Your task to perform on an android device: open app "Expedia: Hotels, Flights & Car" (install if not already installed) Image 0: 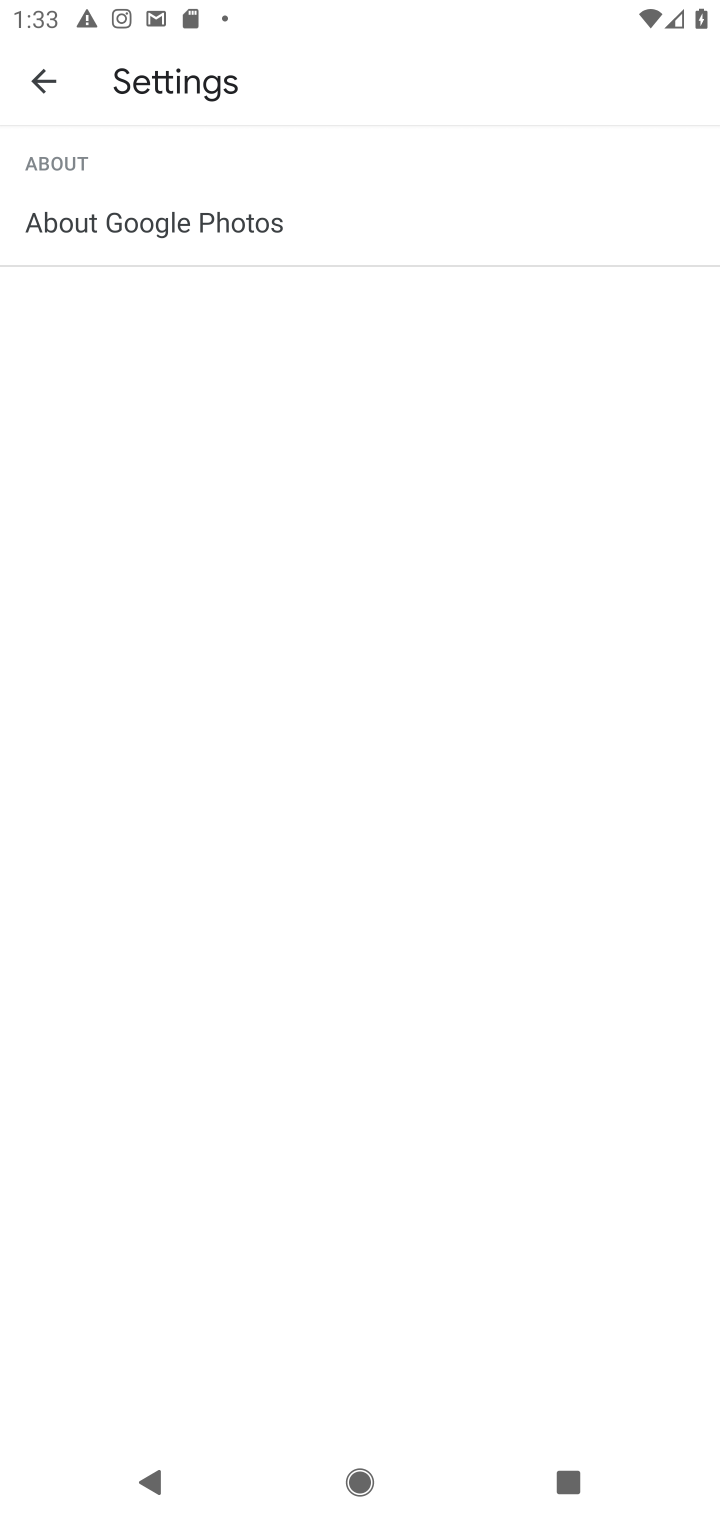
Step 0: press home button
Your task to perform on an android device: open app "Expedia: Hotels, Flights & Car" (install if not already installed) Image 1: 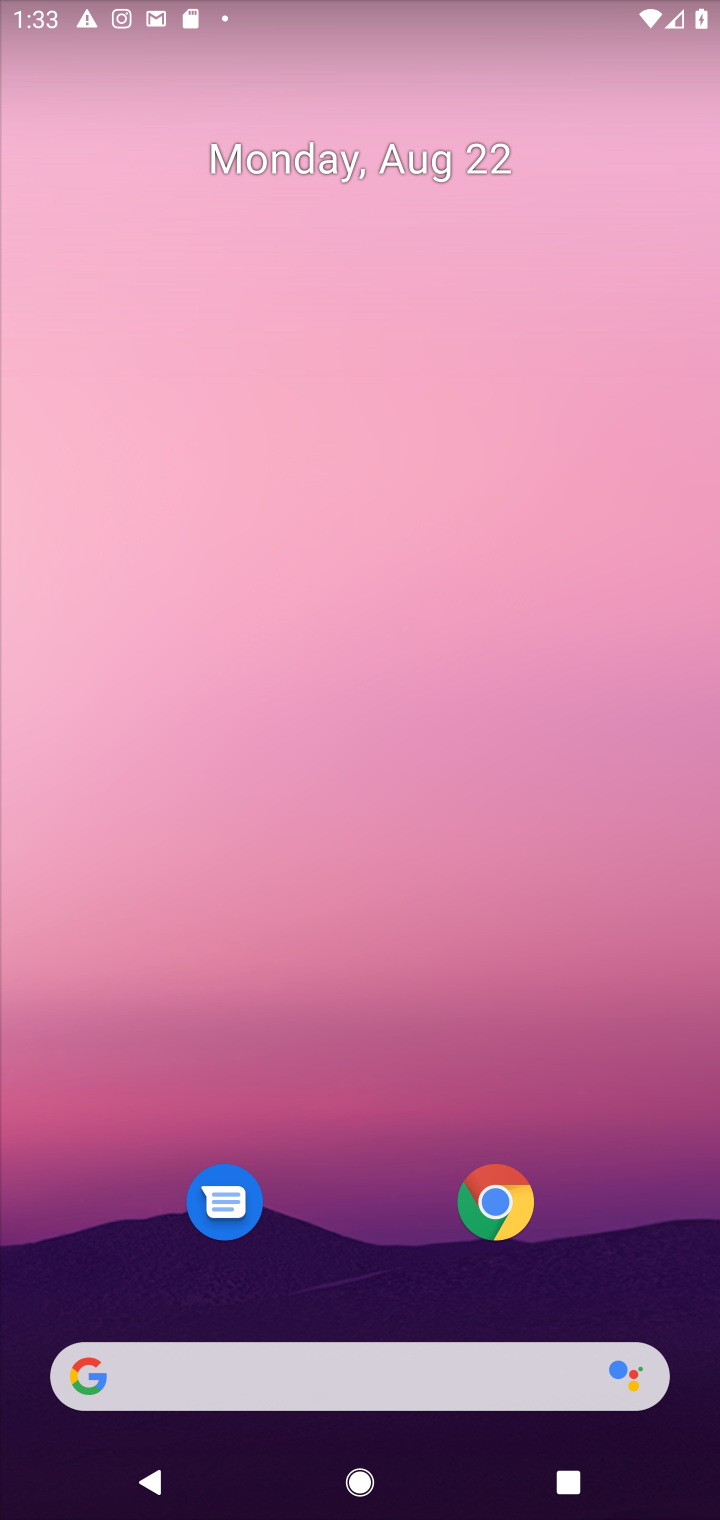
Step 1: drag from (367, 555) to (361, 181)
Your task to perform on an android device: open app "Expedia: Hotels, Flights & Car" (install if not already installed) Image 2: 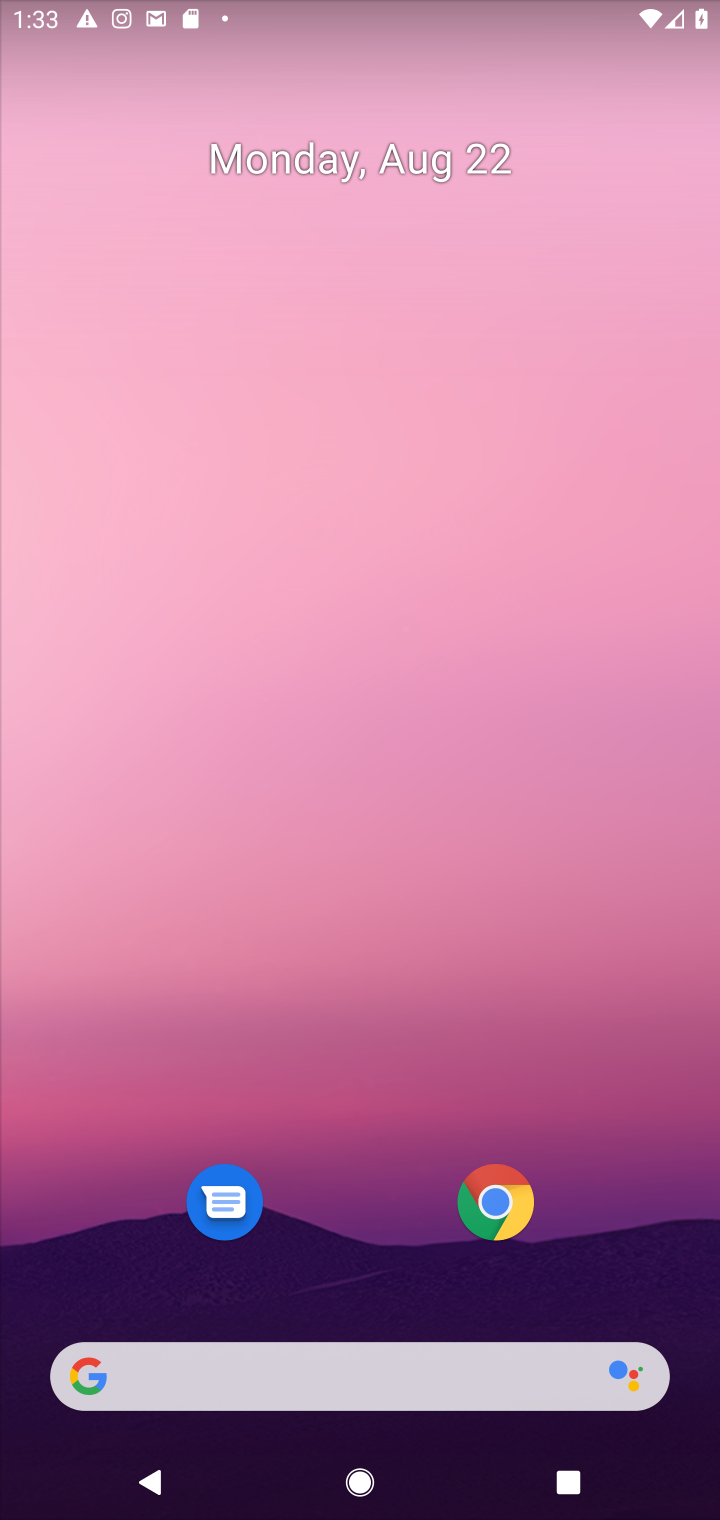
Step 2: drag from (322, 829) to (324, 98)
Your task to perform on an android device: open app "Expedia: Hotels, Flights & Car" (install if not already installed) Image 3: 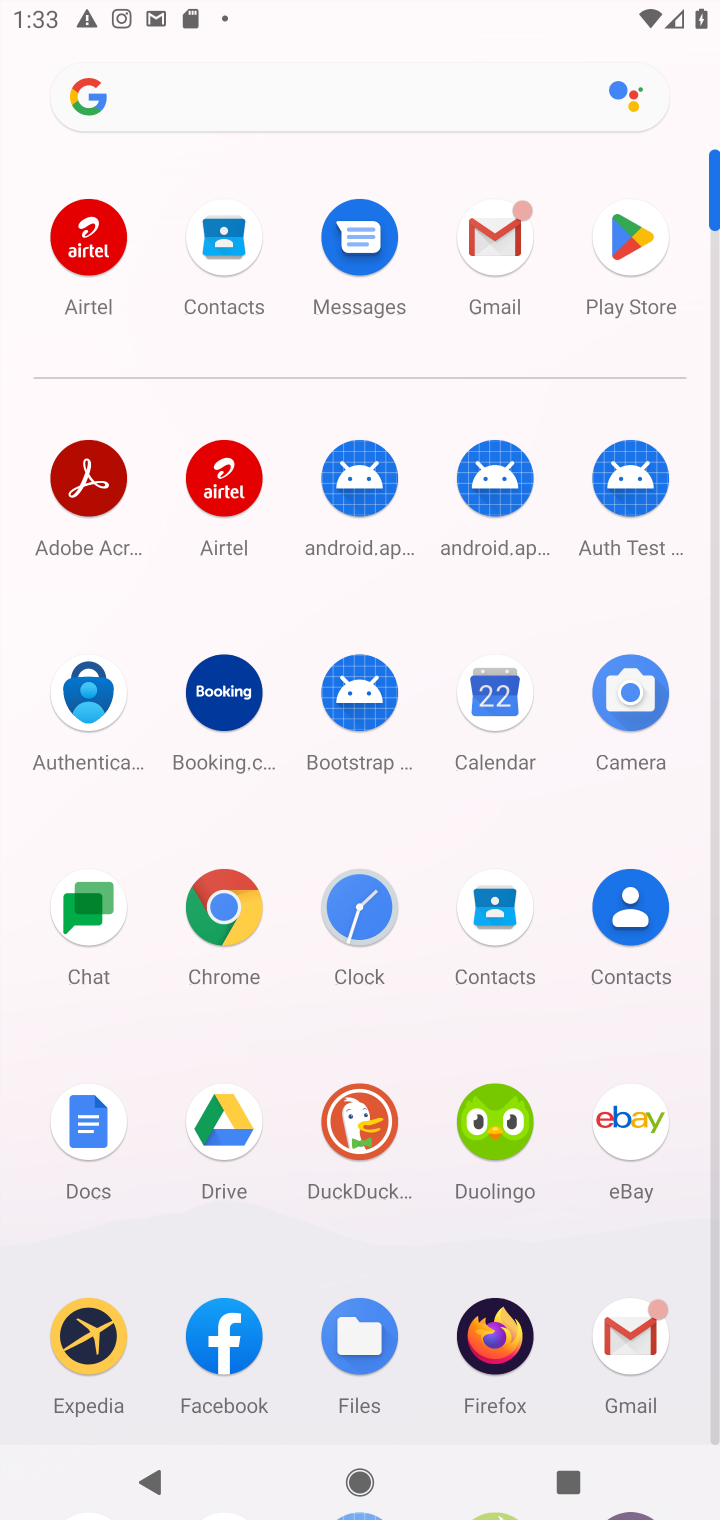
Step 3: click (624, 256)
Your task to perform on an android device: open app "Expedia: Hotels, Flights & Car" (install if not already installed) Image 4: 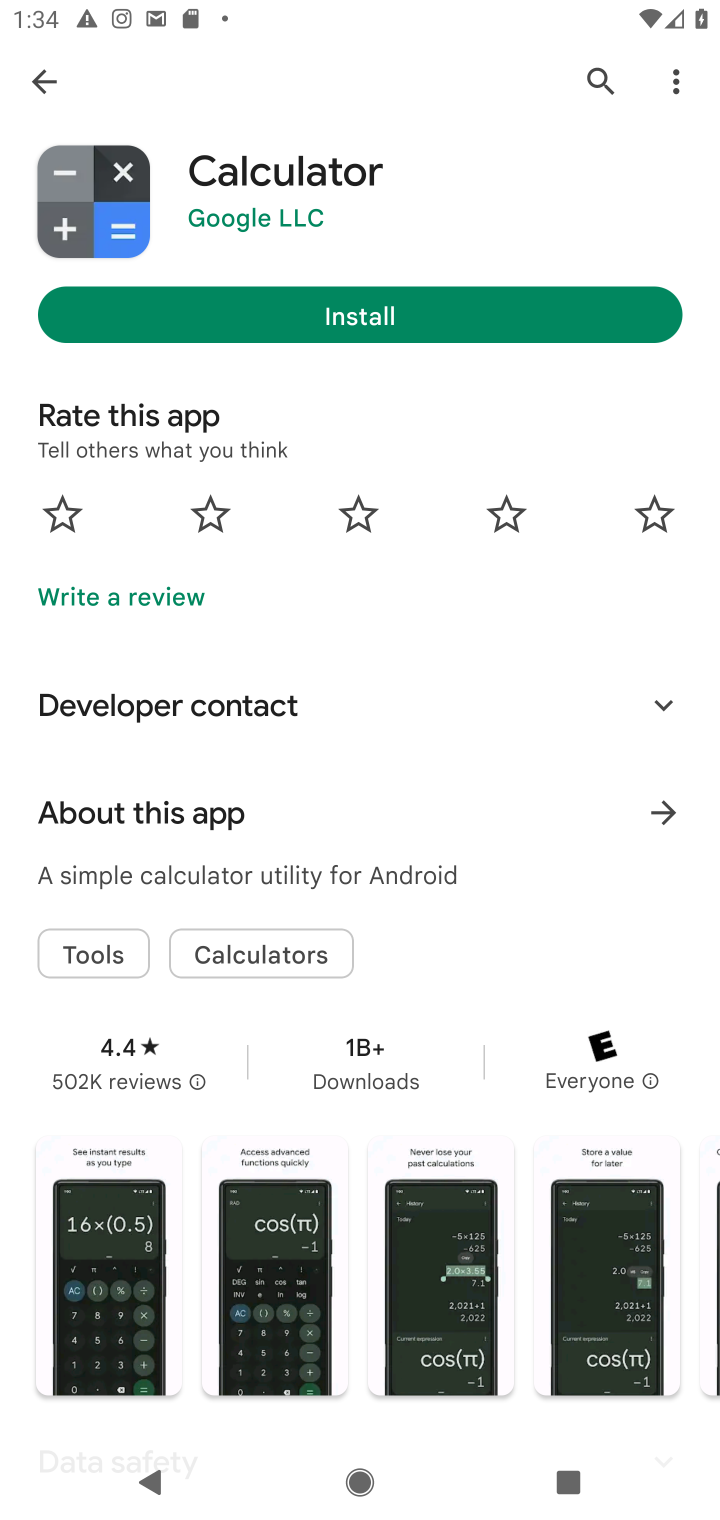
Step 4: click (588, 79)
Your task to perform on an android device: open app "Expedia: Hotels, Flights & Car" (install if not already installed) Image 5: 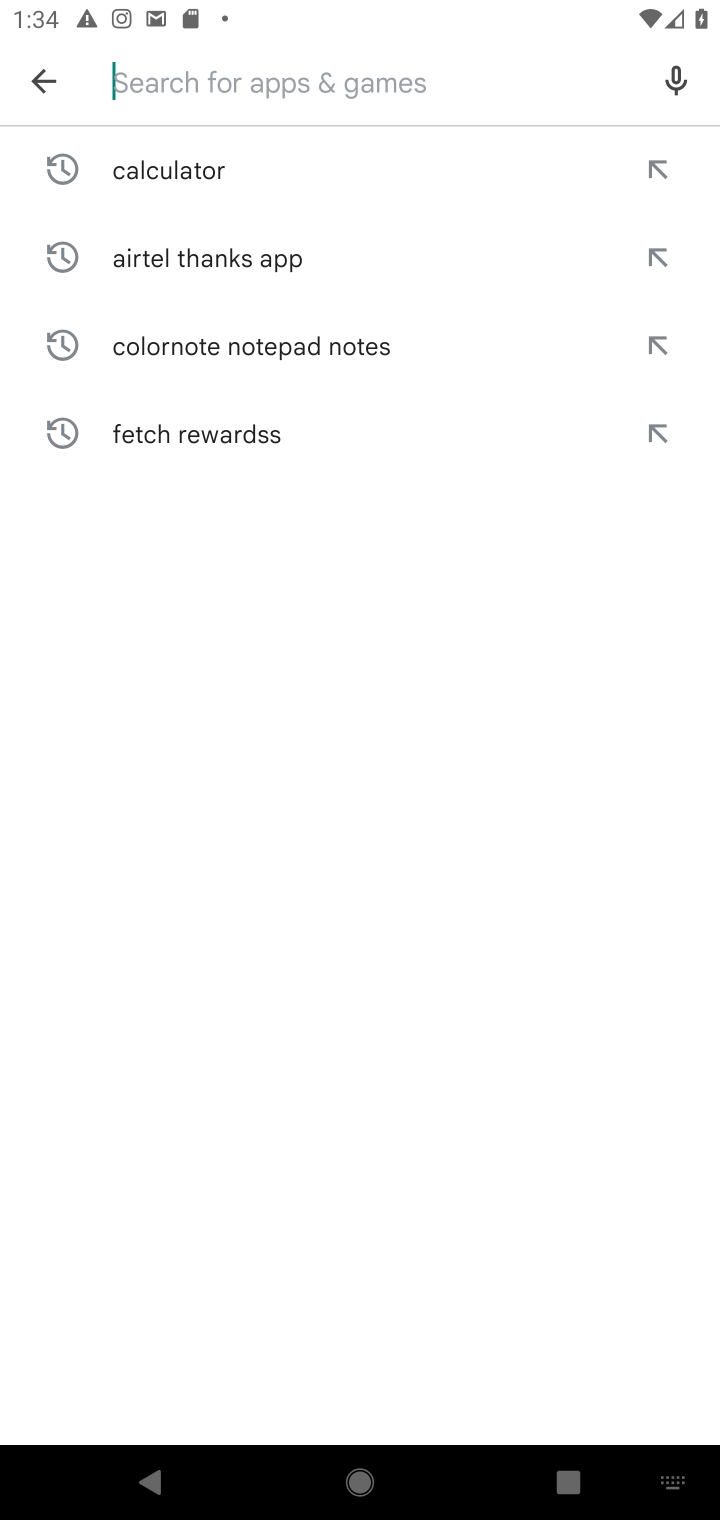
Step 5: type "Expedia: Hotels, Flights & Car"
Your task to perform on an android device: open app "Expedia: Hotels, Flights & Car" (install if not already installed) Image 6: 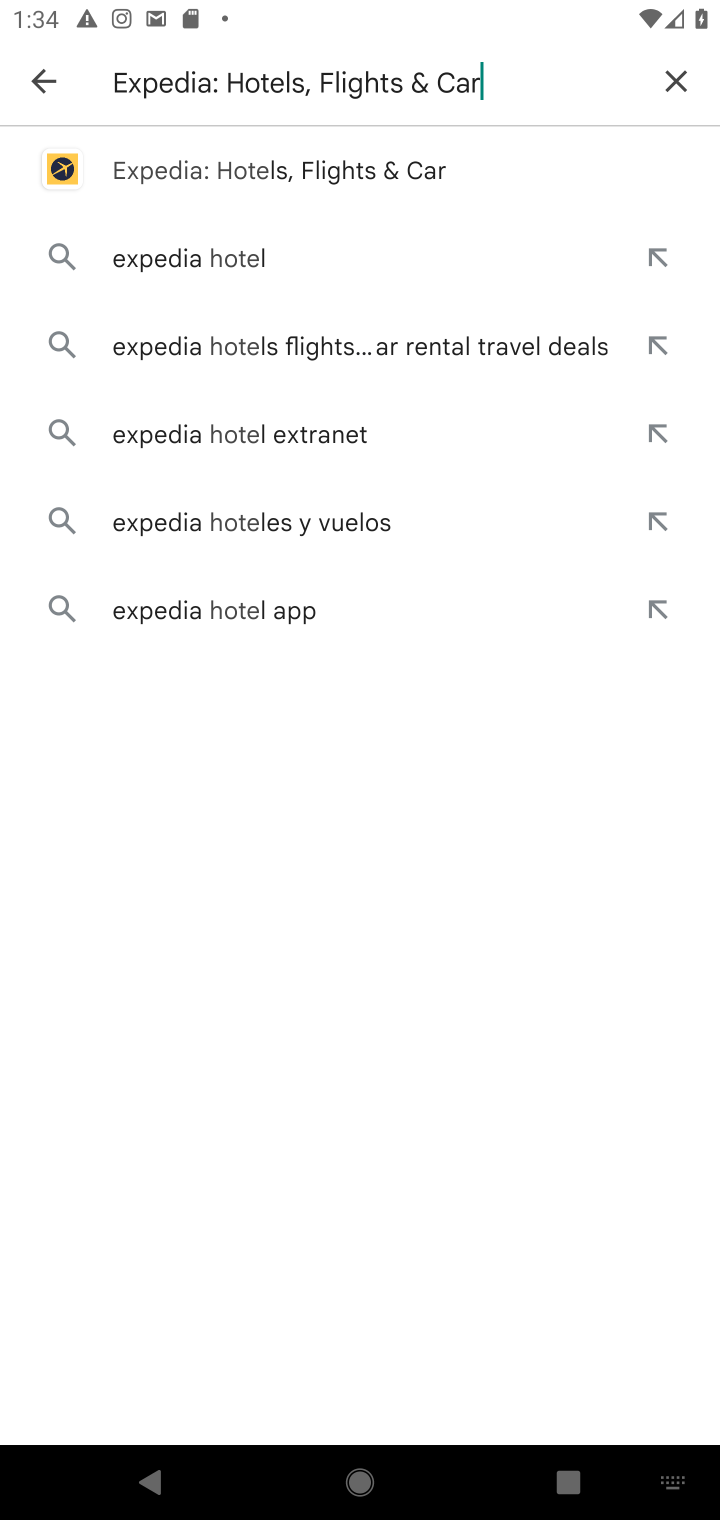
Step 6: type ""
Your task to perform on an android device: open app "Expedia: Hotels, Flights & Car" (install if not already installed) Image 7: 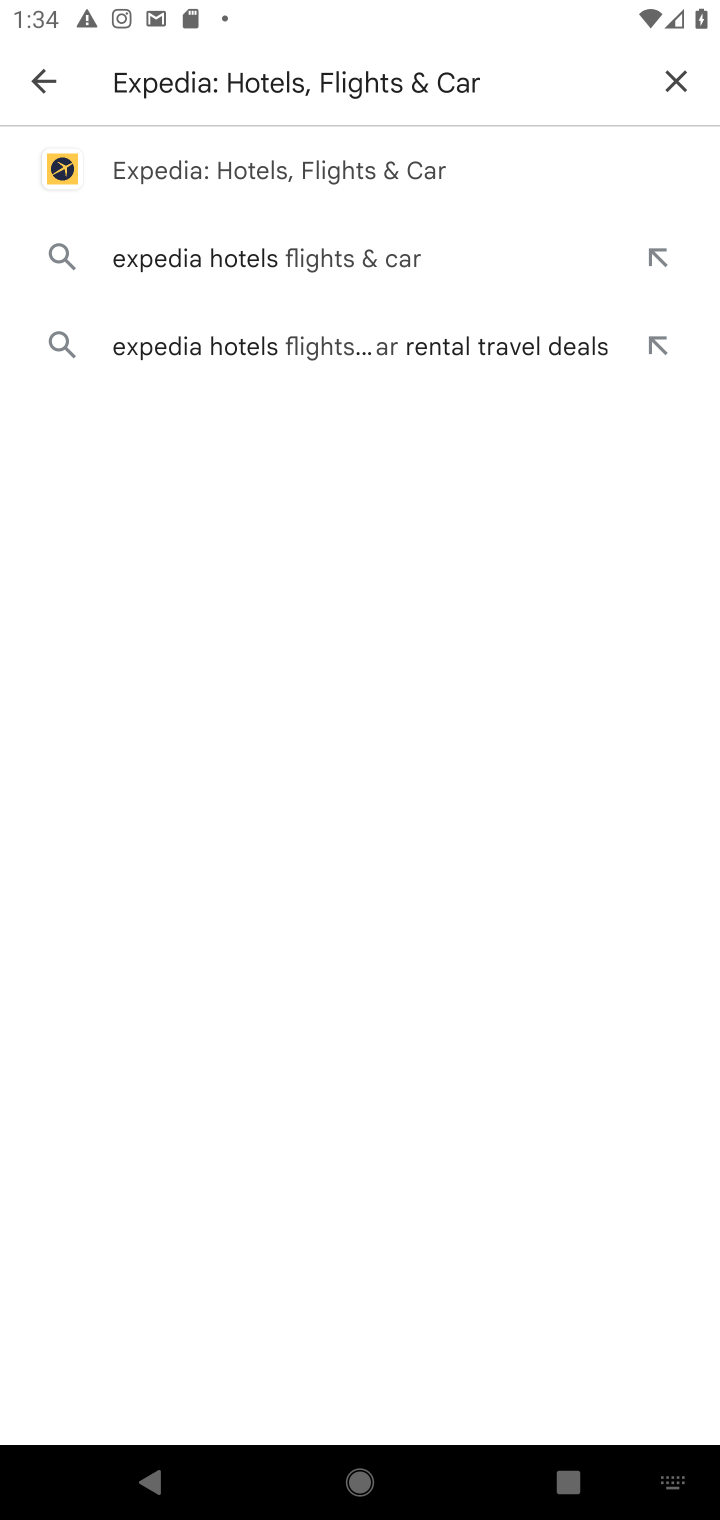
Step 7: click (357, 156)
Your task to perform on an android device: open app "Expedia: Hotels, Flights & Car" (install if not already installed) Image 8: 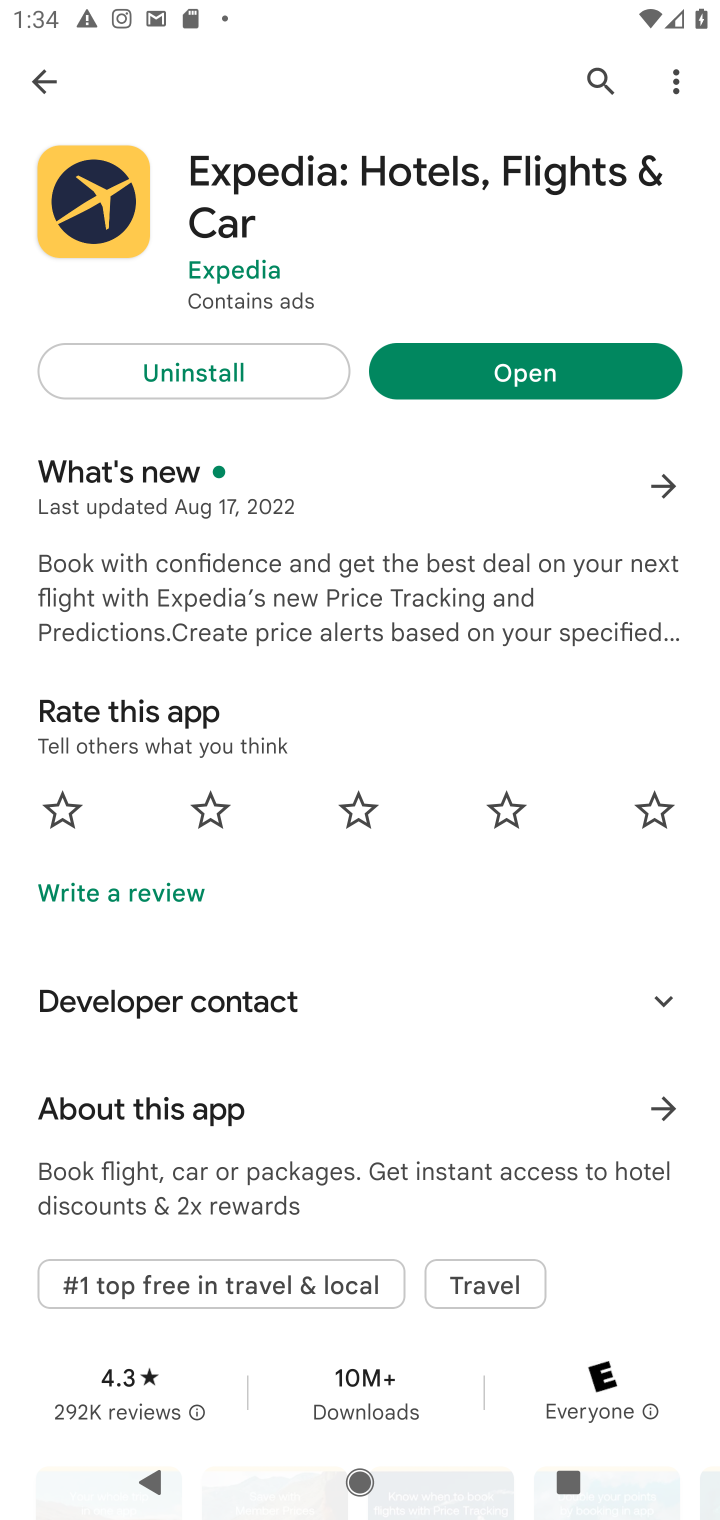
Step 8: click (524, 380)
Your task to perform on an android device: open app "Expedia: Hotels, Flights & Car" (install if not already installed) Image 9: 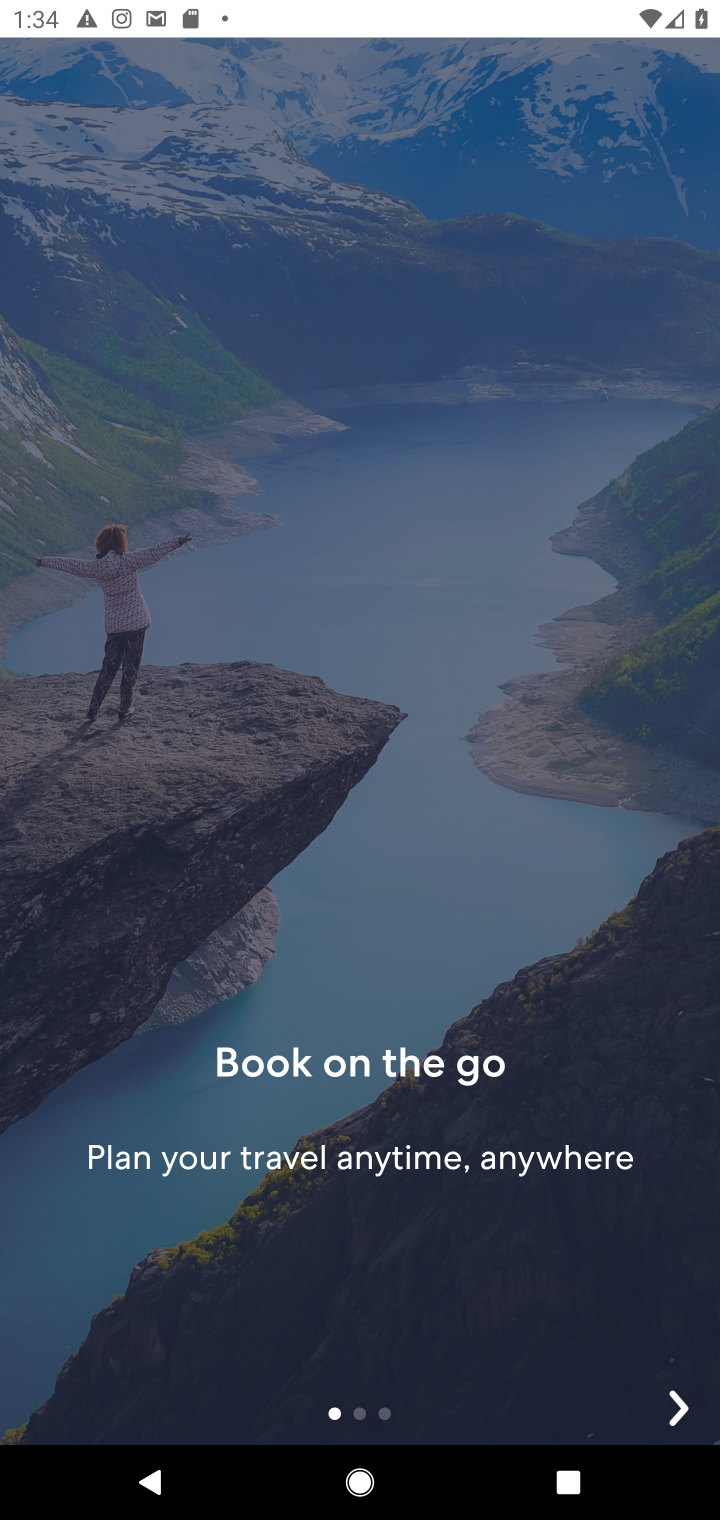
Step 9: click (695, 1421)
Your task to perform on an android device: open app "Expedia: Hotels, Flights & Car" (install if not already installed) Image 10: 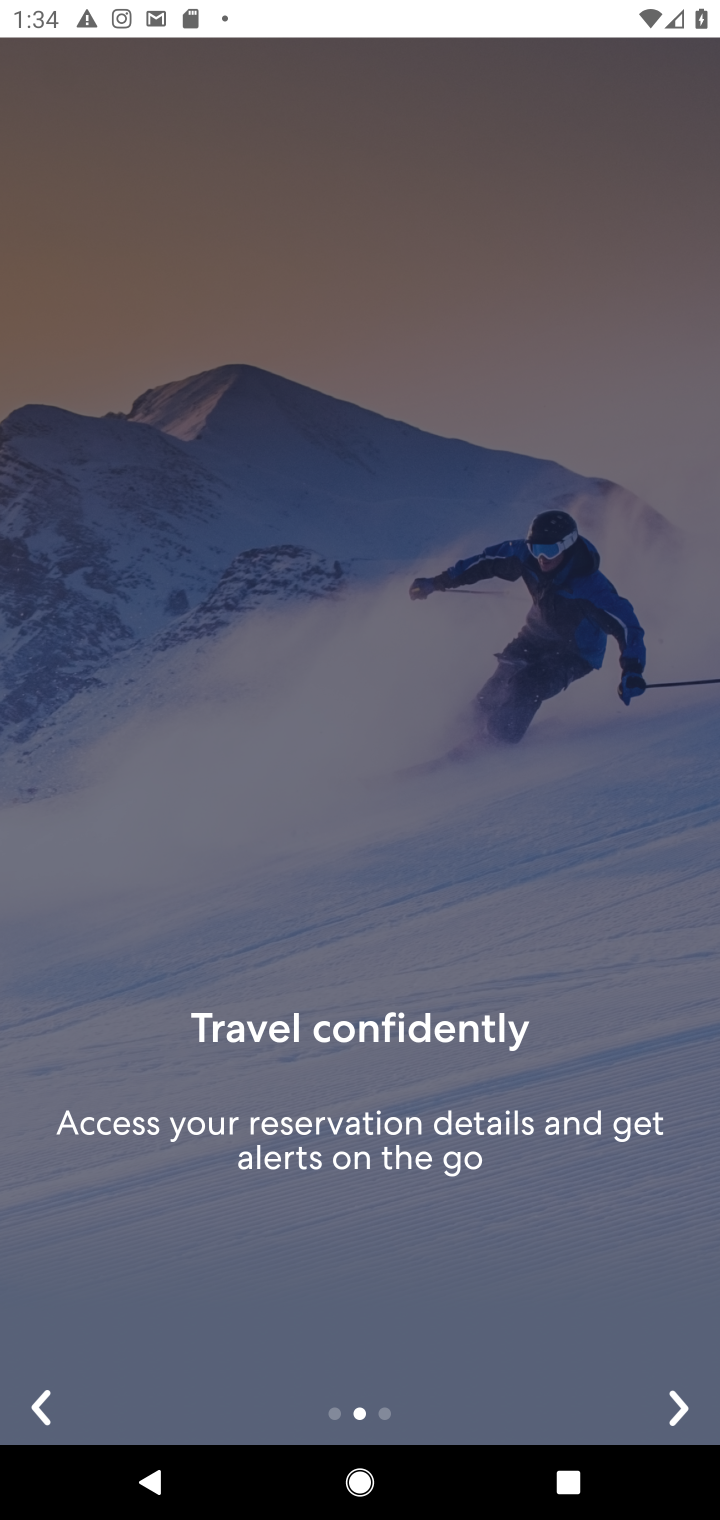
Step 10: click (681, 1419)
Your task to perform on an android device: open app "Expedia: Hotels, Flights & Car" (install if not already installed) Image 11: 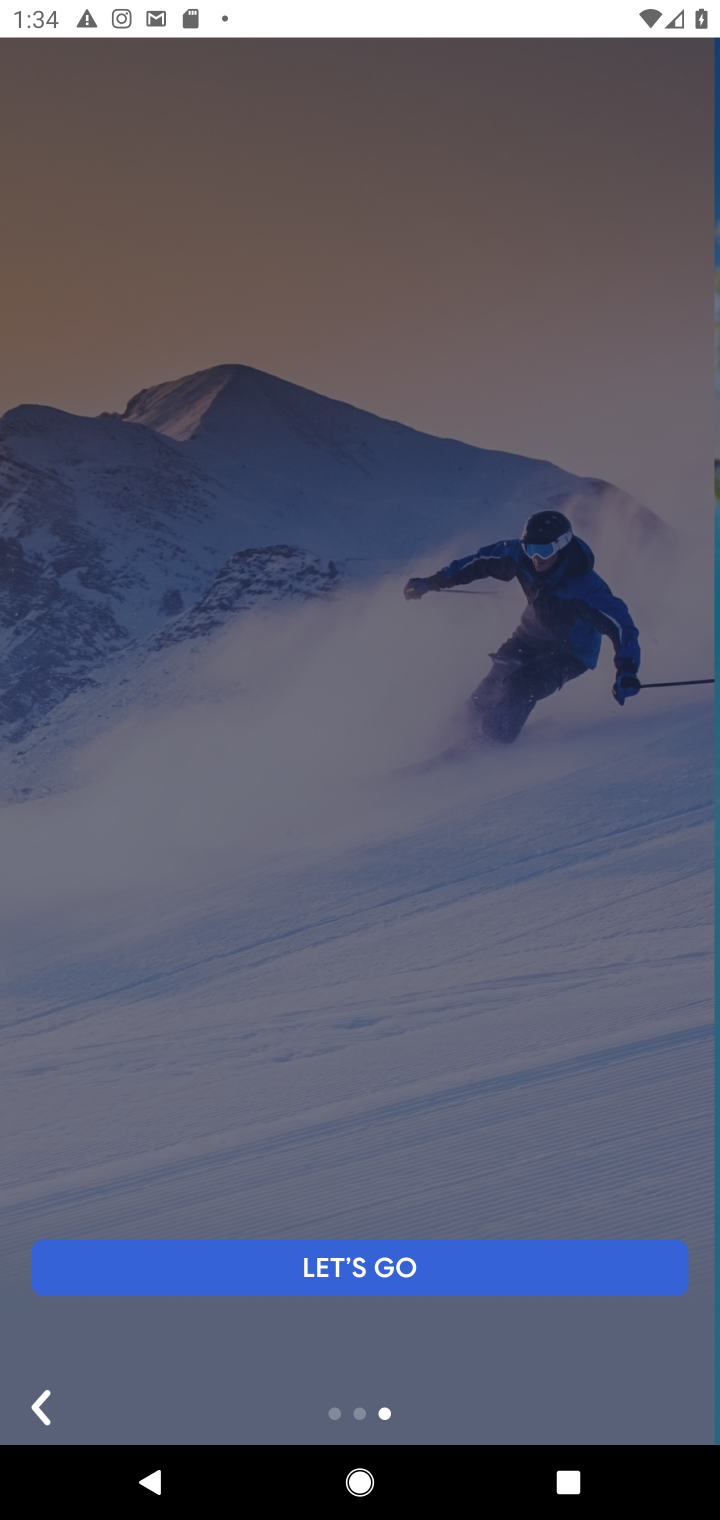
Step 11: click (681, 1419)
Your task to perform on an android device: open app "Expedia: Hotels, Flights & Car" (install if not already installed) Image 12: 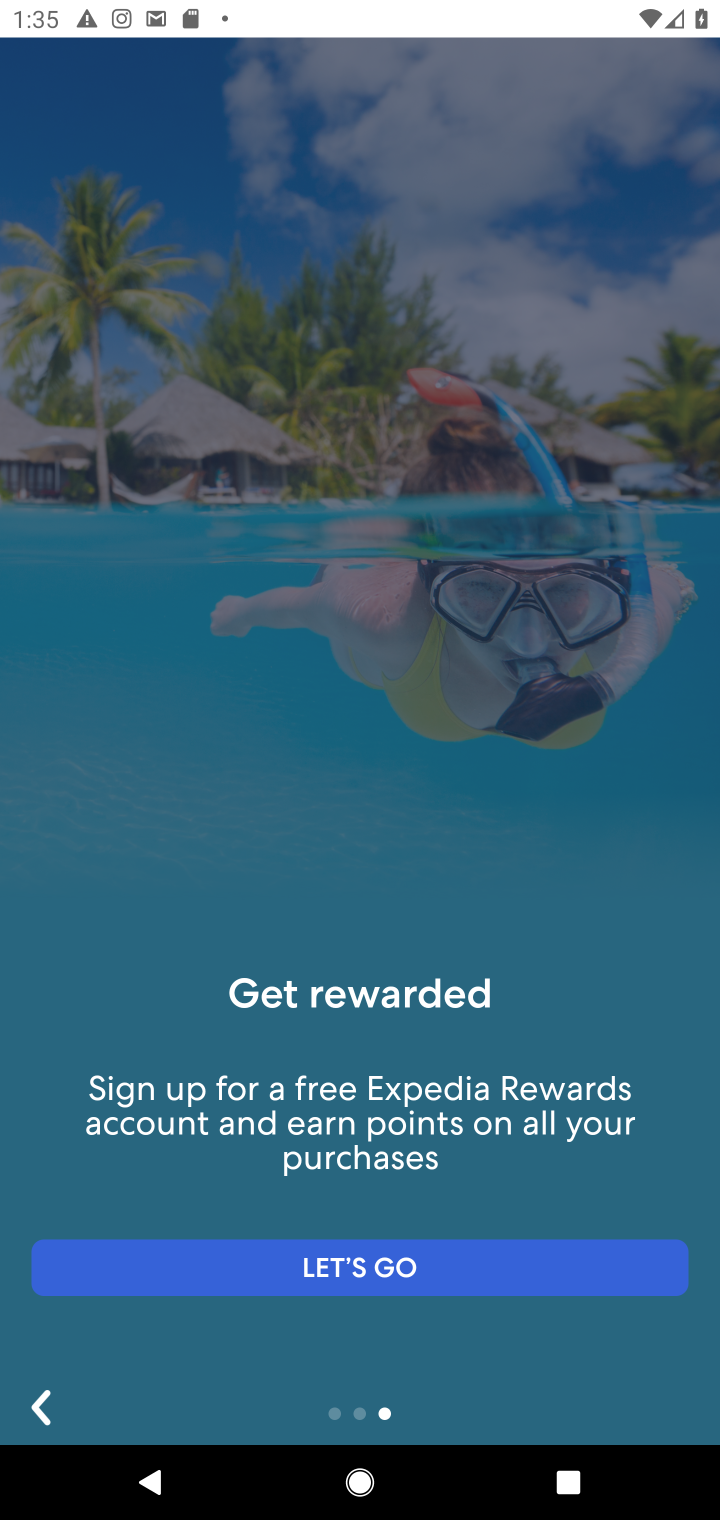
Step 12: click (367, 1267)
Your task to perform on an android device: open app "Expedia: Hotels, Flights & Car" (install if not already installed) Image 13: 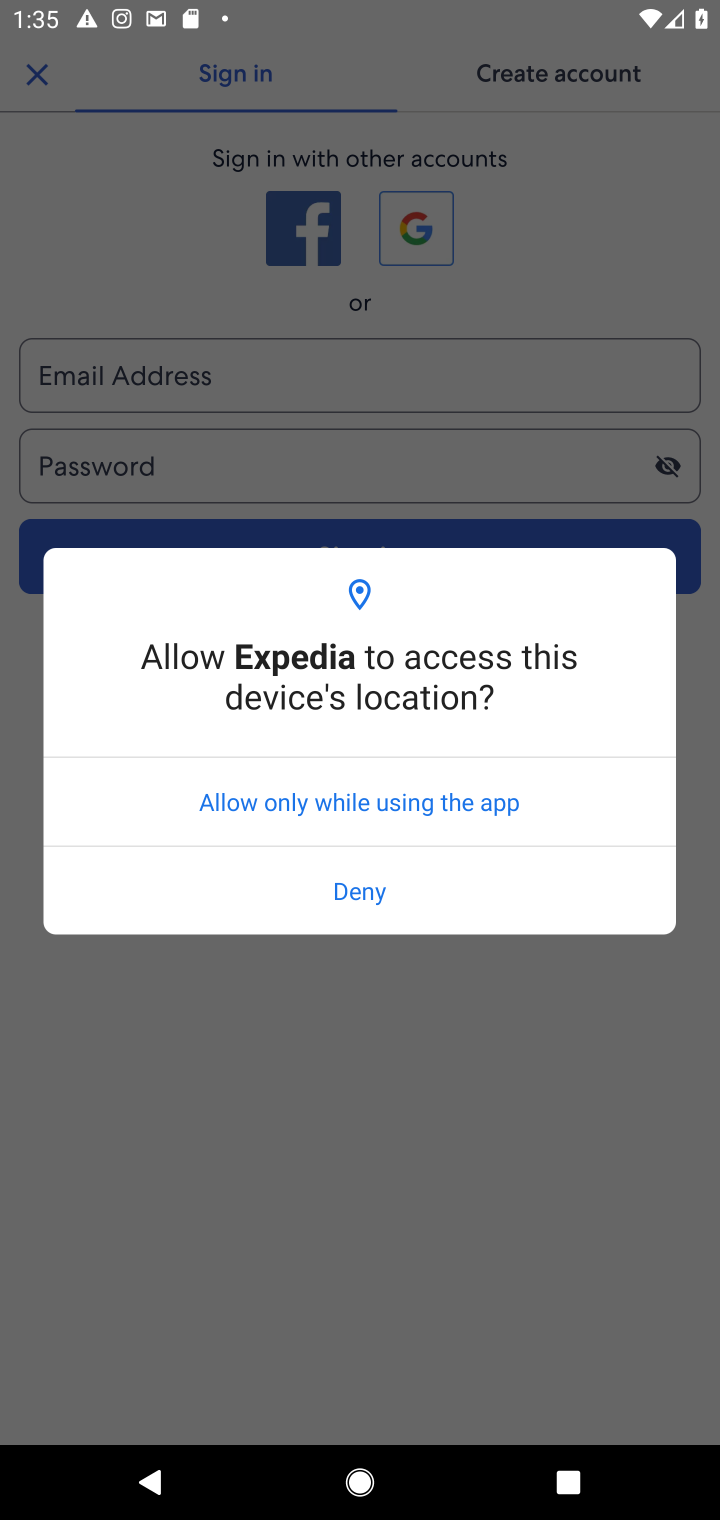
Step 13: task complete